Your task to perform on an android device: What is the recent news? Image 0: 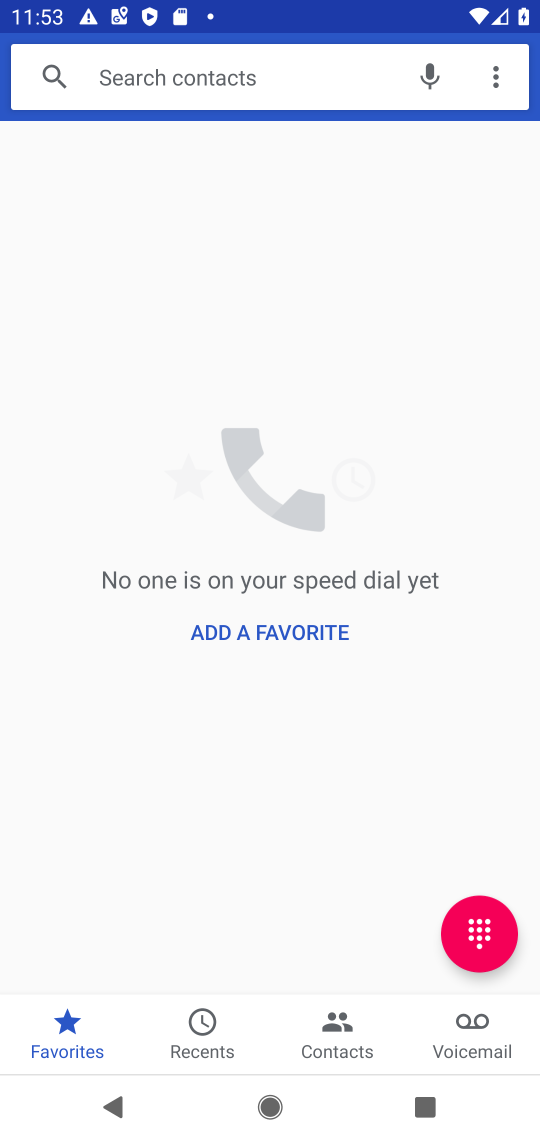
Step 0: press home button
Your task to perform on an android device: What is the recent news? Image 1: 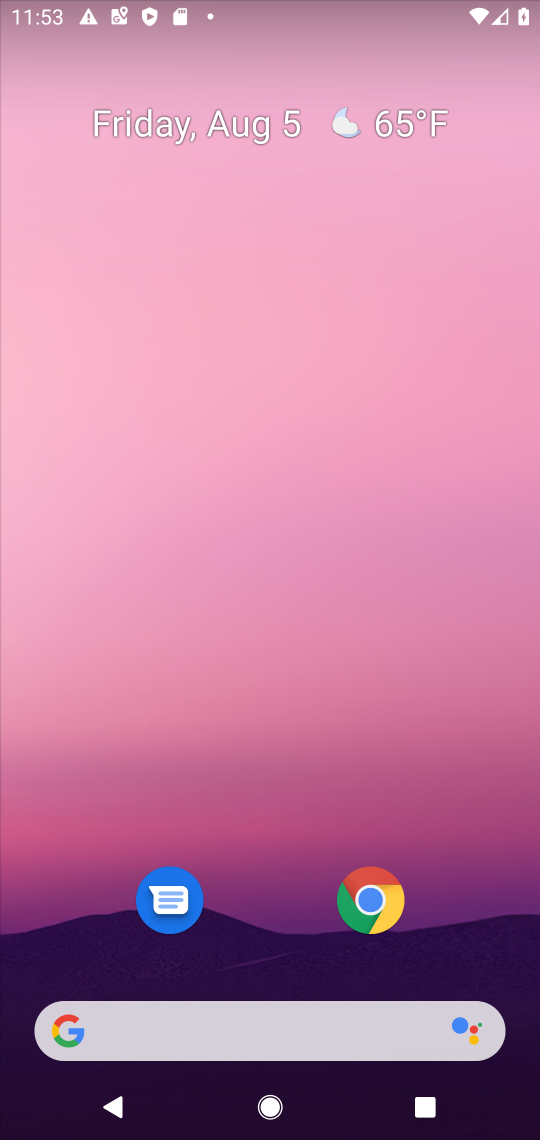
Step 1: task complete